Your task to perform on an android device: Open notification settings Image 0: 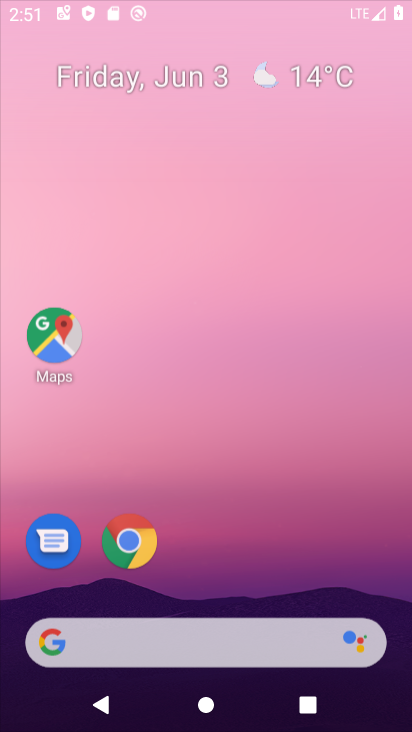
Step 0: drag from (299, 557) to (374, 172)
Your task to perform on an android device: Open notification settings Image 1: 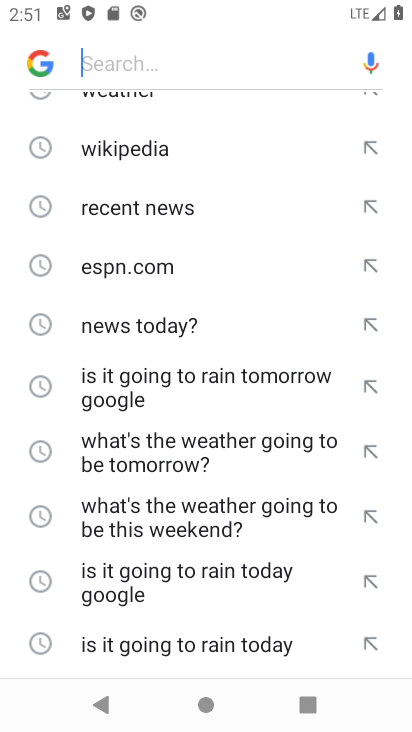
Step 1: press home button
Your task to perform on an android device: Open notification settings Image 2: 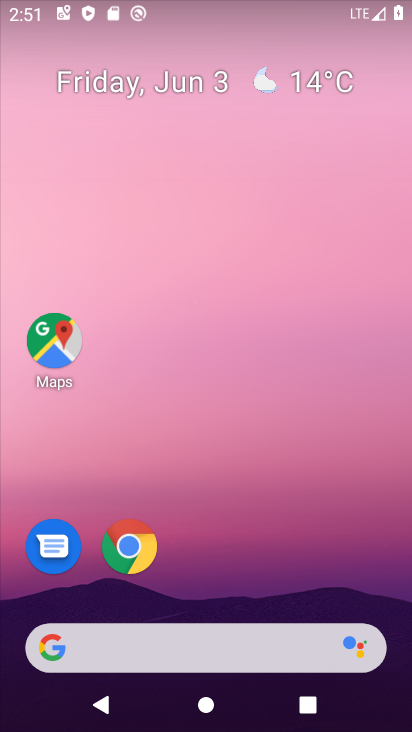
Step 2: drag from (205, 543) to (322, 44)
Your task to perform on an android device: Open notification settings Image 3: 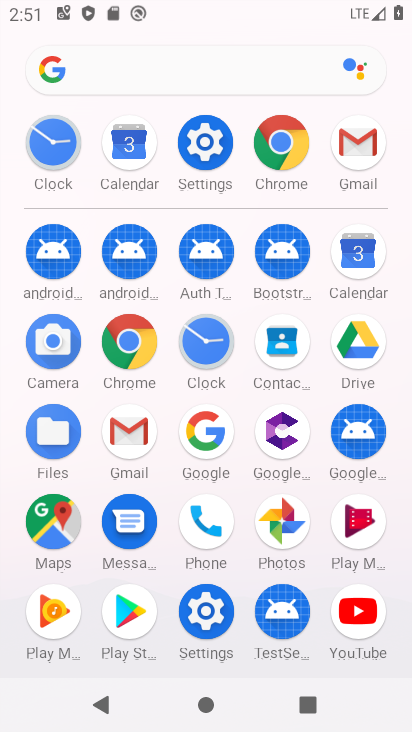
Step 3: click (199, 154)
Your task to perform on an android device: Open notification settings Image 4: 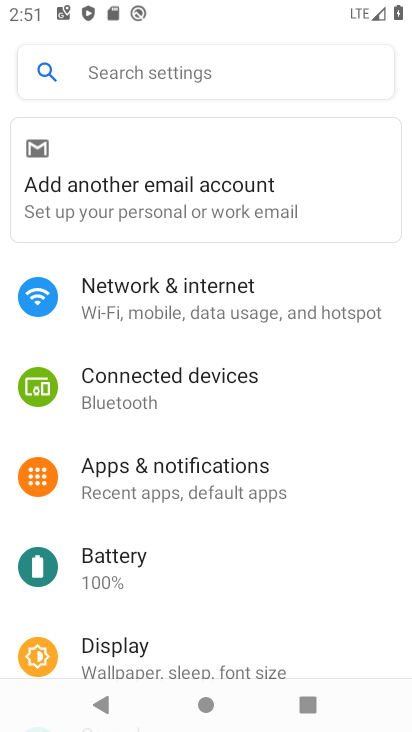
Step 4: click (201, 475)
Your task to perform on an android device: Open notification settings Image 5: 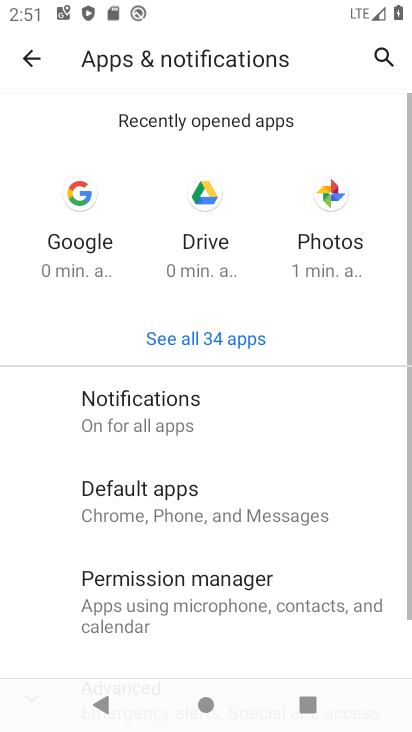
Step 5: click (103, 442)
Your task to perform on an android device: Open notification settings Image 6: 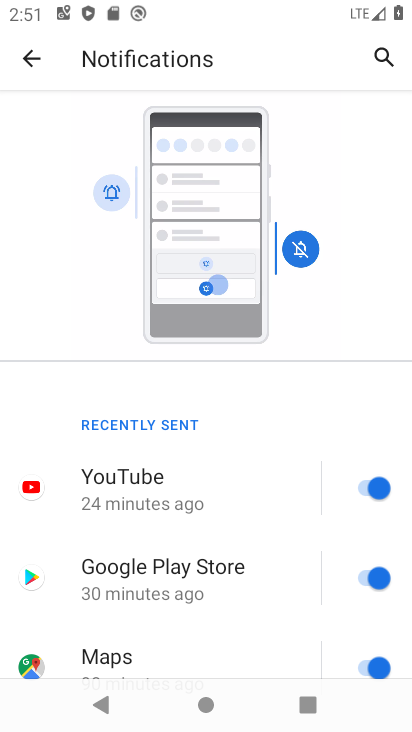
Step 6: task complete